Your task to perform on an android device: Open calendar and show me the third week of next month Image 0: 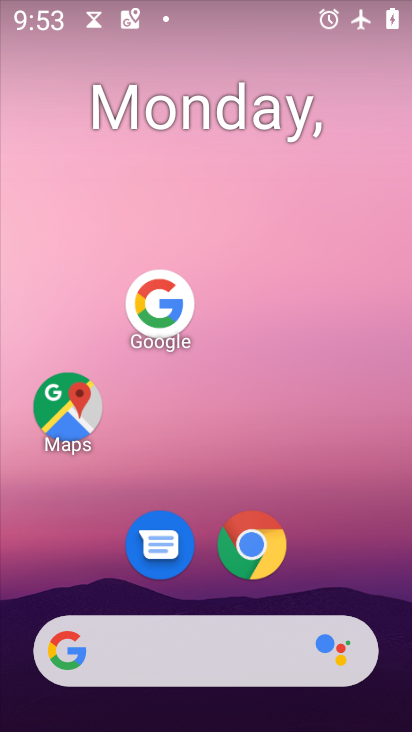
Step 0: drag from (151, 669) to (239, 129)
Your task to perform on an android device: Open calendar and show me the third week of next month Image 1: 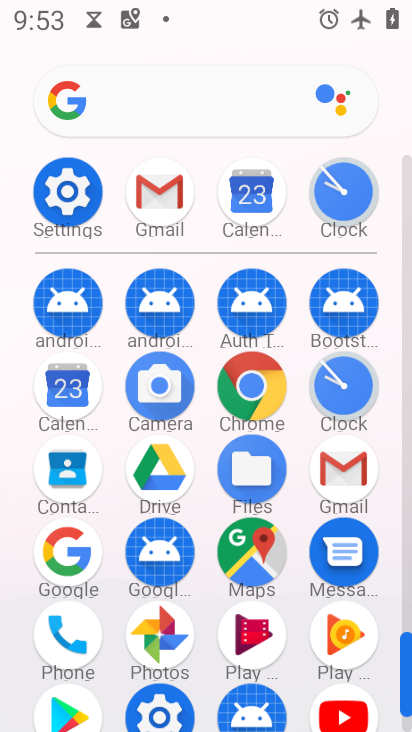
Step 1: click (73, 394)
Your task to perform on an android device: Open calendar and show me the third week of next month Image 2: 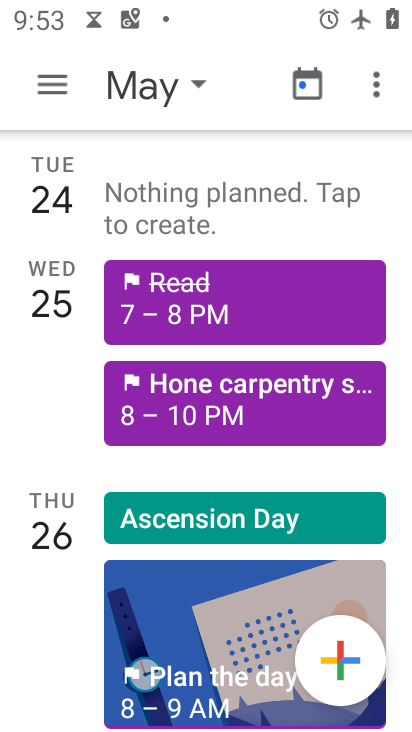
Step 2: click (137, 89)
Your task to perform on an android device: Open calendar and show me the third week of next month Image 3: 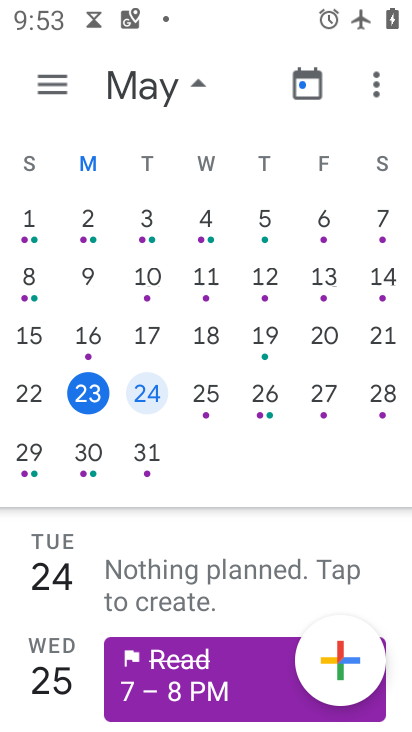
Step 3: drag from (370, 310) to (4, 314)
Your task to perform on an android device: Open calendar and show me the third week of next month Image 4: 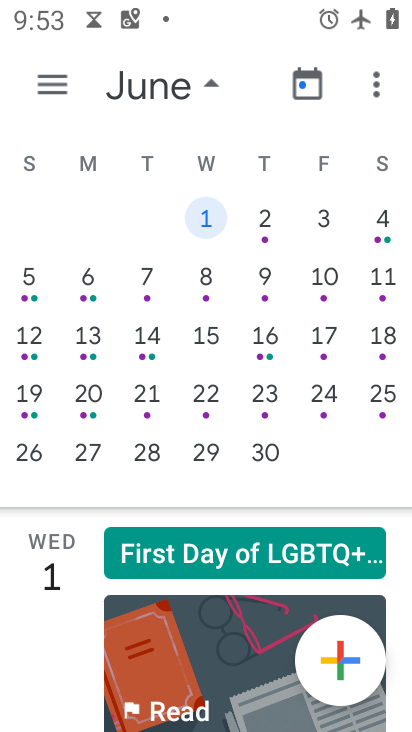
Step 4: click (41, 332)
Your task to perform on an android device: Open calendar and show me the third week of next month Image 5: 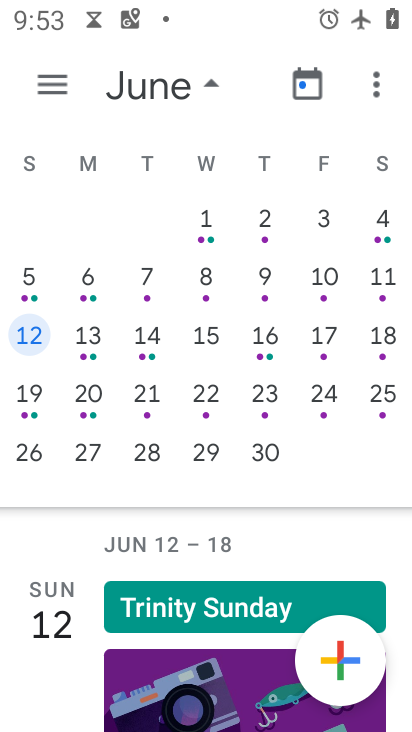
Step 5: click (60, 89)
Your task to perform on an android device: Open calendar and show me the third week of next month Image 6: 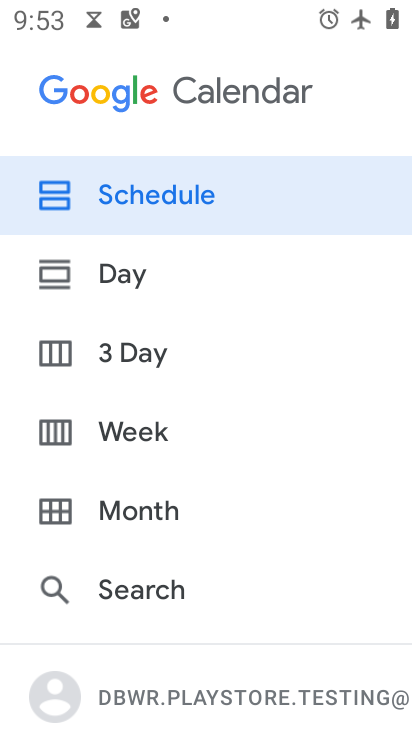
Step 6: click (137, 436)
Your task to perform on an android device: Open calendar and show me the third week of next month Image 7: 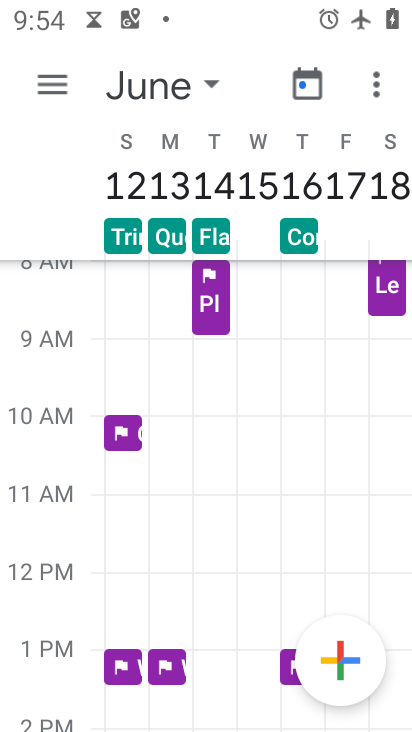
Step 7: task complete